Your task to perform on an android device: add a contact in the contacts app Image 0: 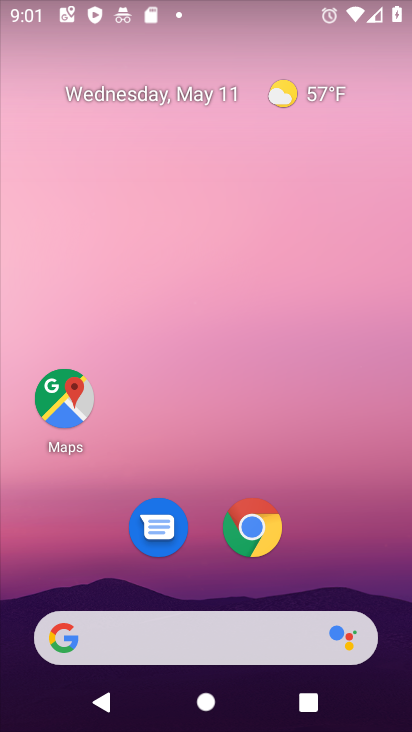
Step 0: drag from (393, 454) to (395, 11)
Your task to perform on an android device: add a contact in the contacts app Image 1: 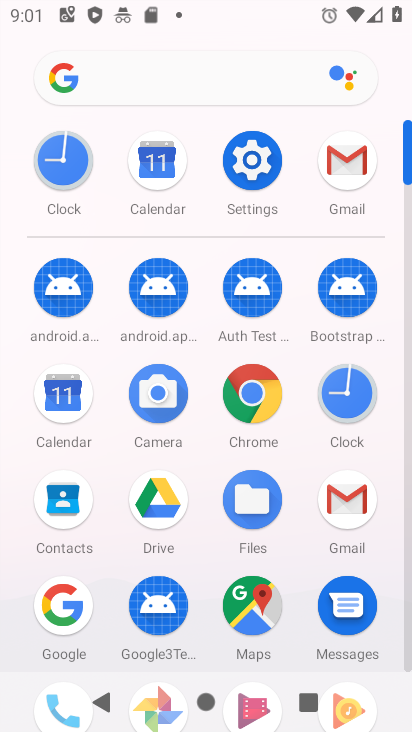
Step 1: click (51, 511)
Your task to perform on an android device: add a contact in the contacts app Image 2: 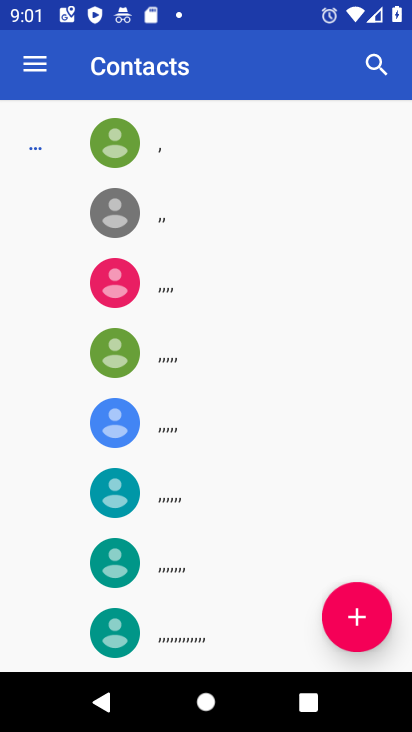
Step 2: click (360, 620)
Your task to perform on an android device: add a contact in the contacts app Image 3: 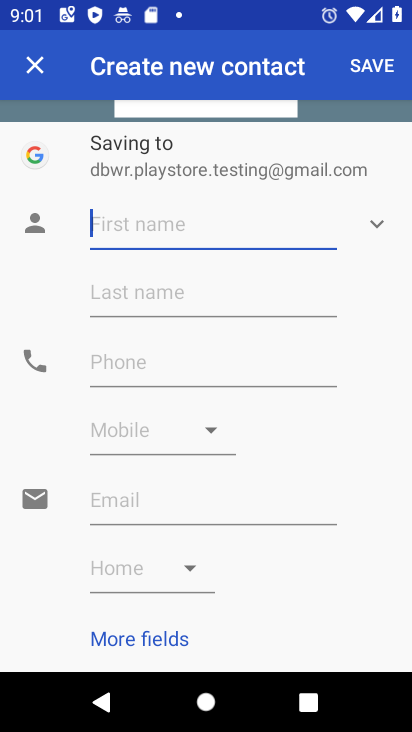
Step 3: click (145, 240)
Your task to perform on an android device: add a contact in the contacts app Image 4: 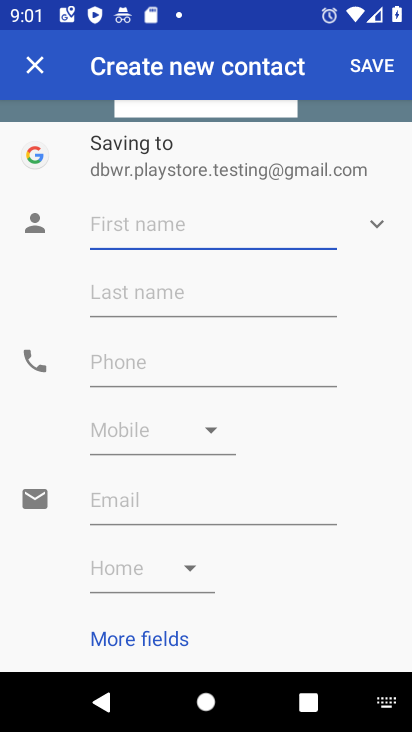
Step 4: type "seema"
Your task to perform on an android device: add a contact in the contacts app Image 5: 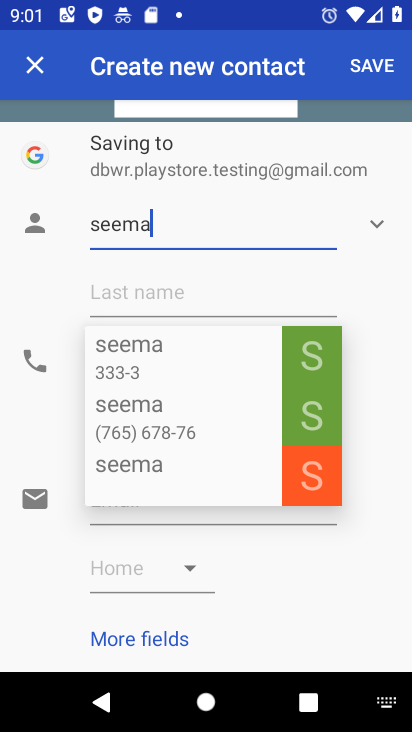
Step 5: click (392, 340)
Your task to perform on an android device: add a contact in the contacts app Image 6: 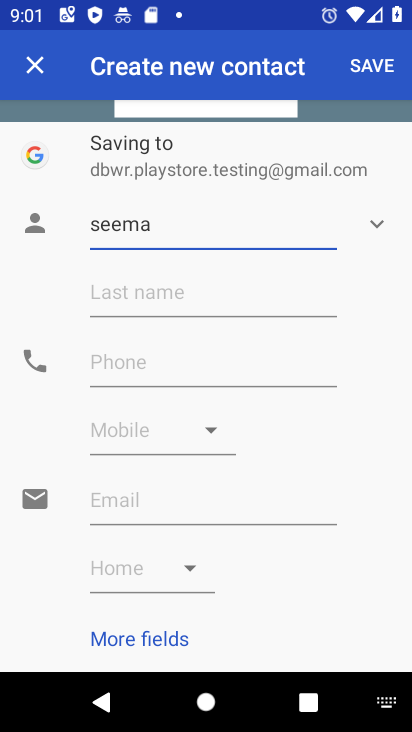
Step 6: click (187, 356)
Your task to perform on an android device: add a contact in the contacts app Image 7: 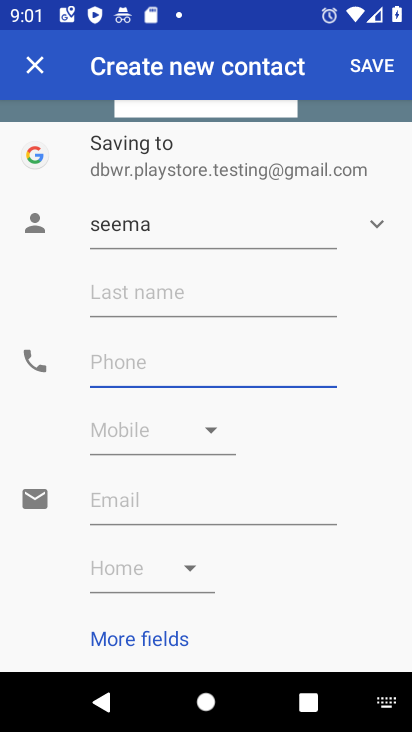
Step 7: type "876544334"
Your task to perform on an android device: add a contact in the contacts app Image 8: 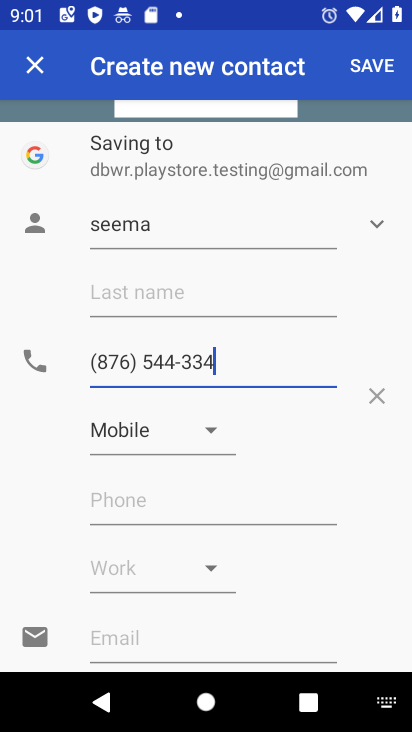
Step 8: click (383, 72)
Your task to perform on an android device: add a contact in the contacts app Image 9: 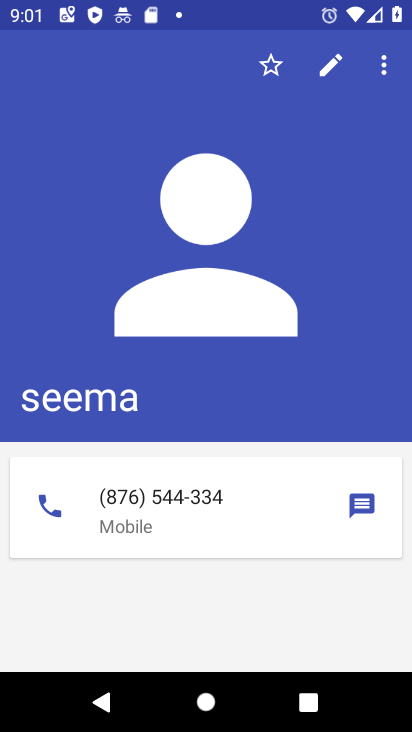
Step 9: task complete